Your task to perform on an android device: Open Wikipedia Image 0: 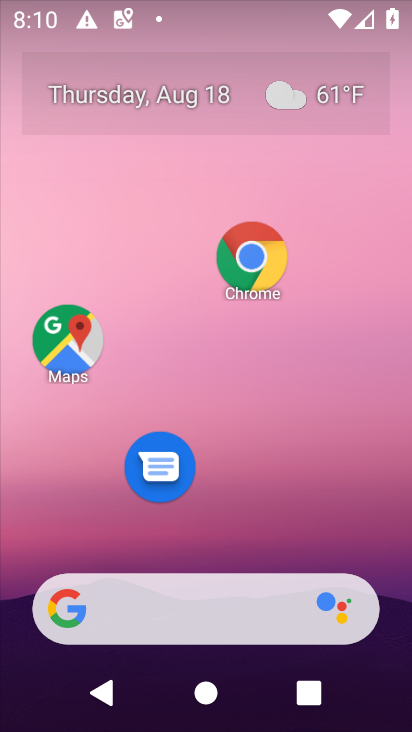
Step 0: drag from (268, 514) to (303, 138)
Your task to perform on an android device: Open Wikipedia Image 1: 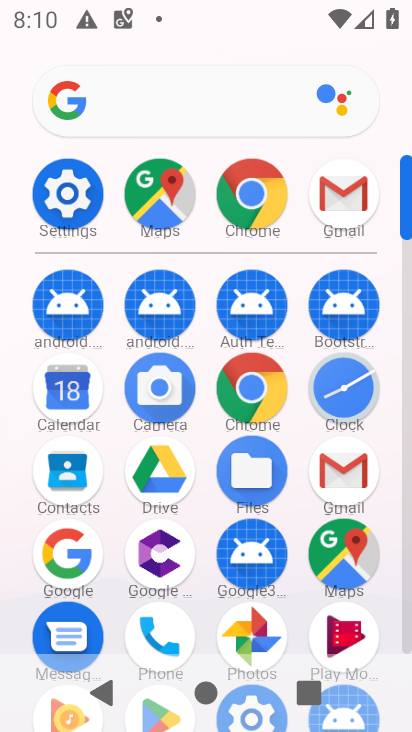
Step 1: task complete